Your task to perform on an android device: Open maps Image 0: 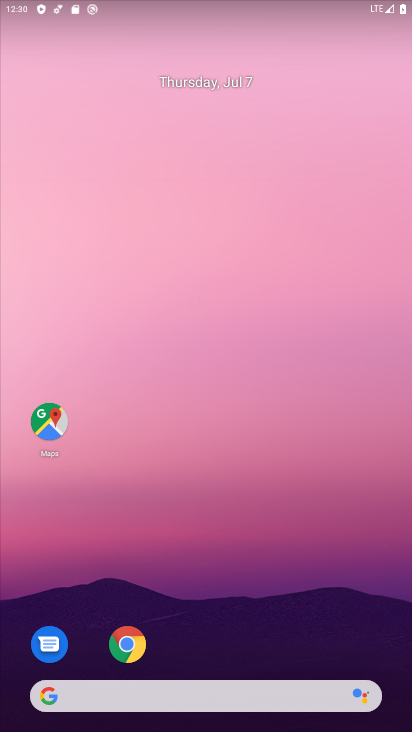
Step 0: click (43, 427)
Your task to perform on an android device: Open maps Image 1: 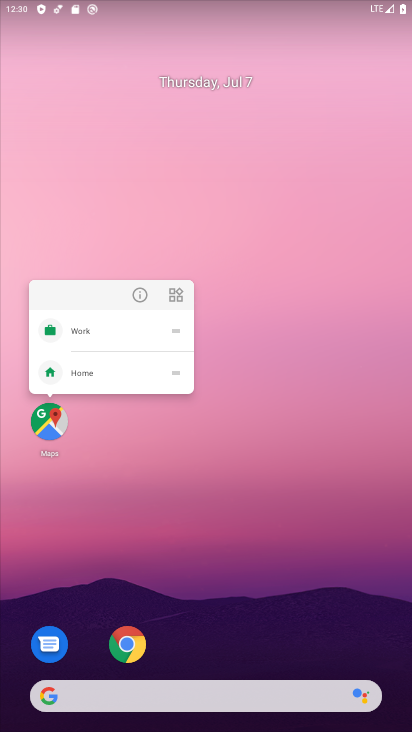
Step 1: click (28, 419)
Your task to perform on an android device: Open maps Image 2: 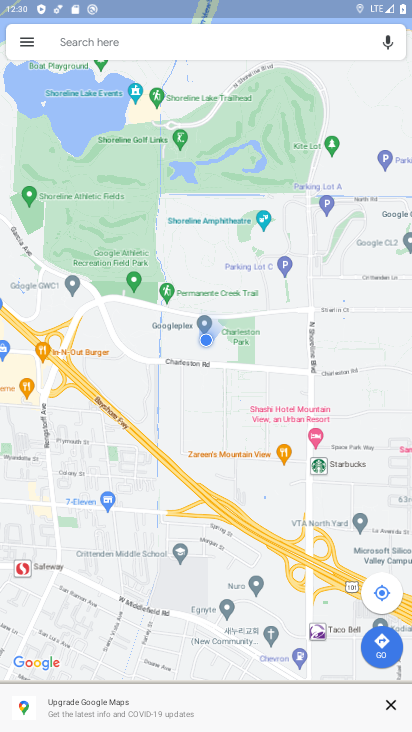
Step 2: task complete